Your task to perform on an android device: toggle wifi Image 0: 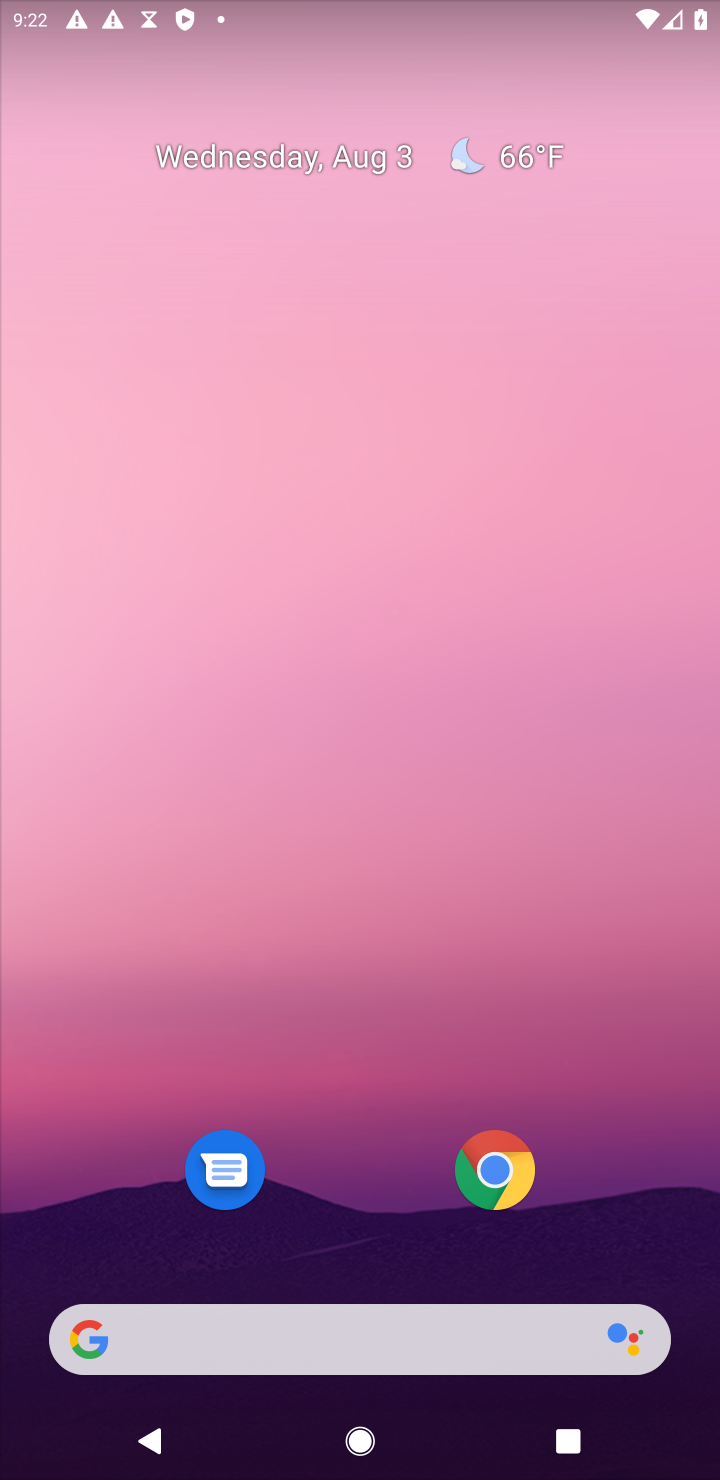
Step 0: drag from (699, 1278) to (530, 83)
Your task to perform on an android device: toggle wifi Image 1: 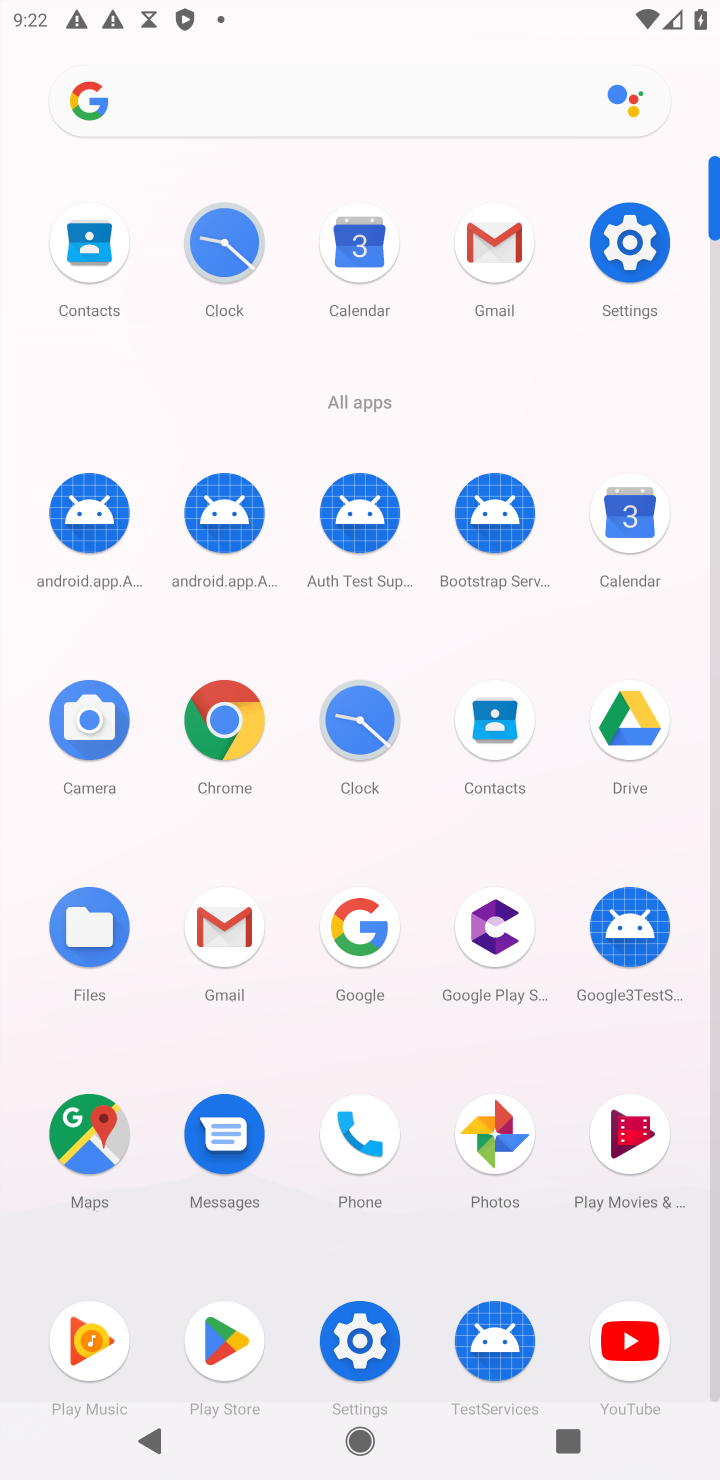
Step 1: click (626, 245)
Your task to perform on an android device: toggle wifi Image 2: 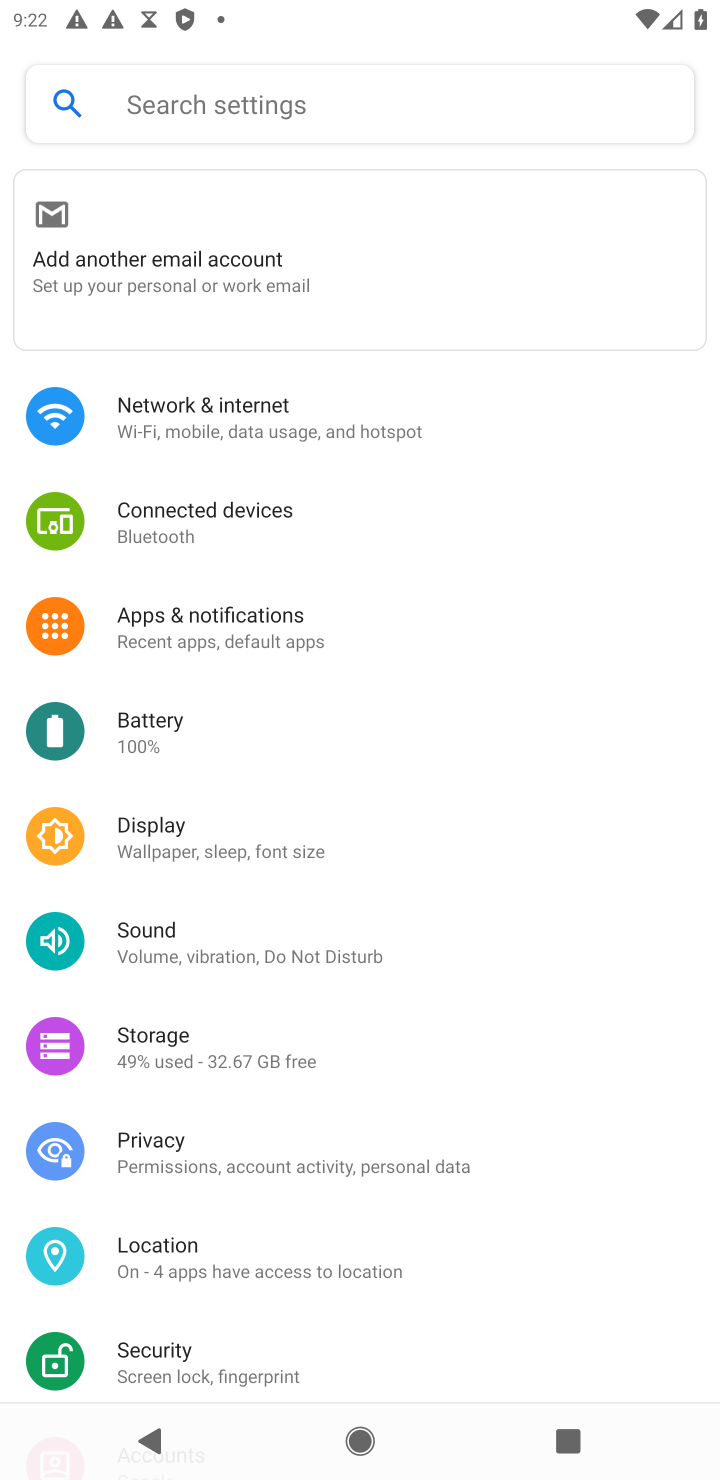
Step 2: click (391, 423)
Your task to perform on an android device: toggle wifi Image 3: 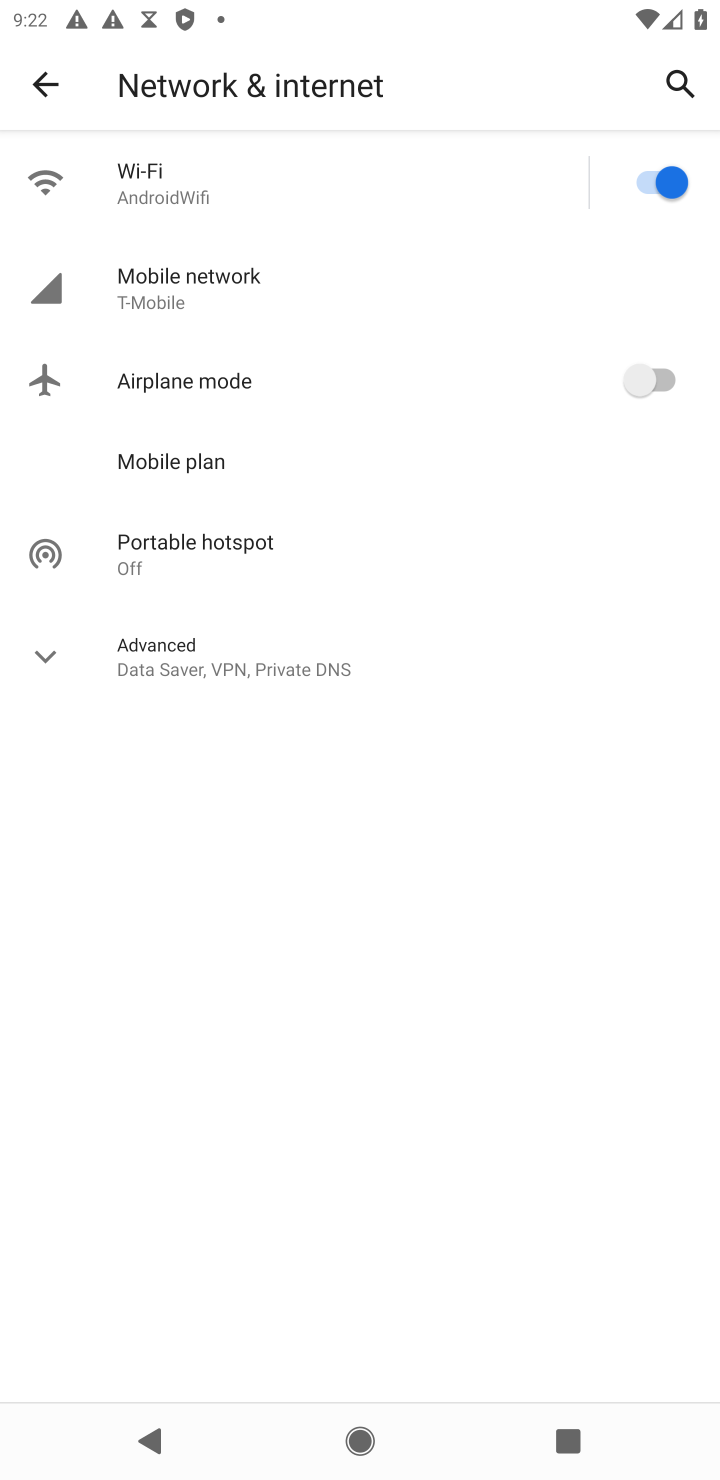
Step 3: click (648, 184)
Your task to perform on an android device: toggle wifi Image 4: 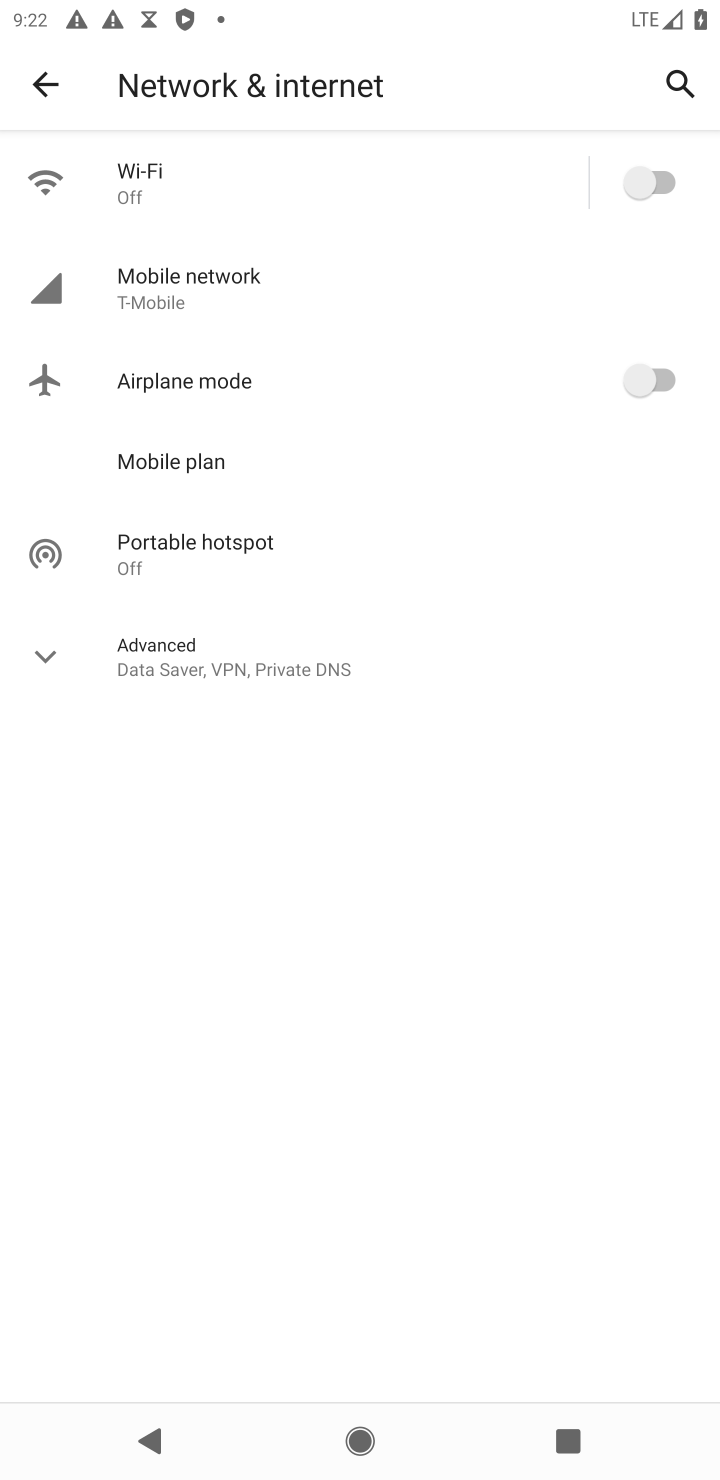
Step 4: task complete